Your task to perform on an android device: What's the weather like in Seoul? Image 0: 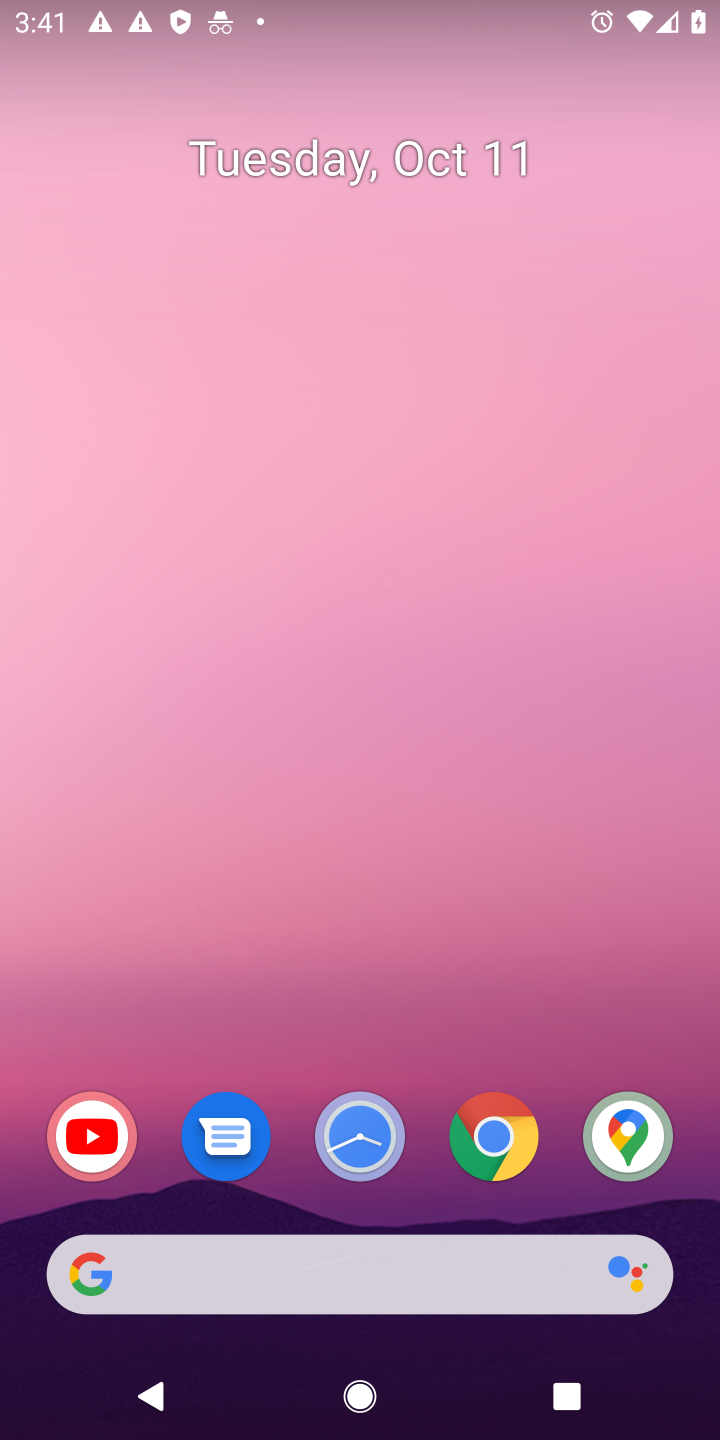
Step 0: click (496, 1131)
Your task to perform on an android device: What's the weather like in Seoul? Image 1: 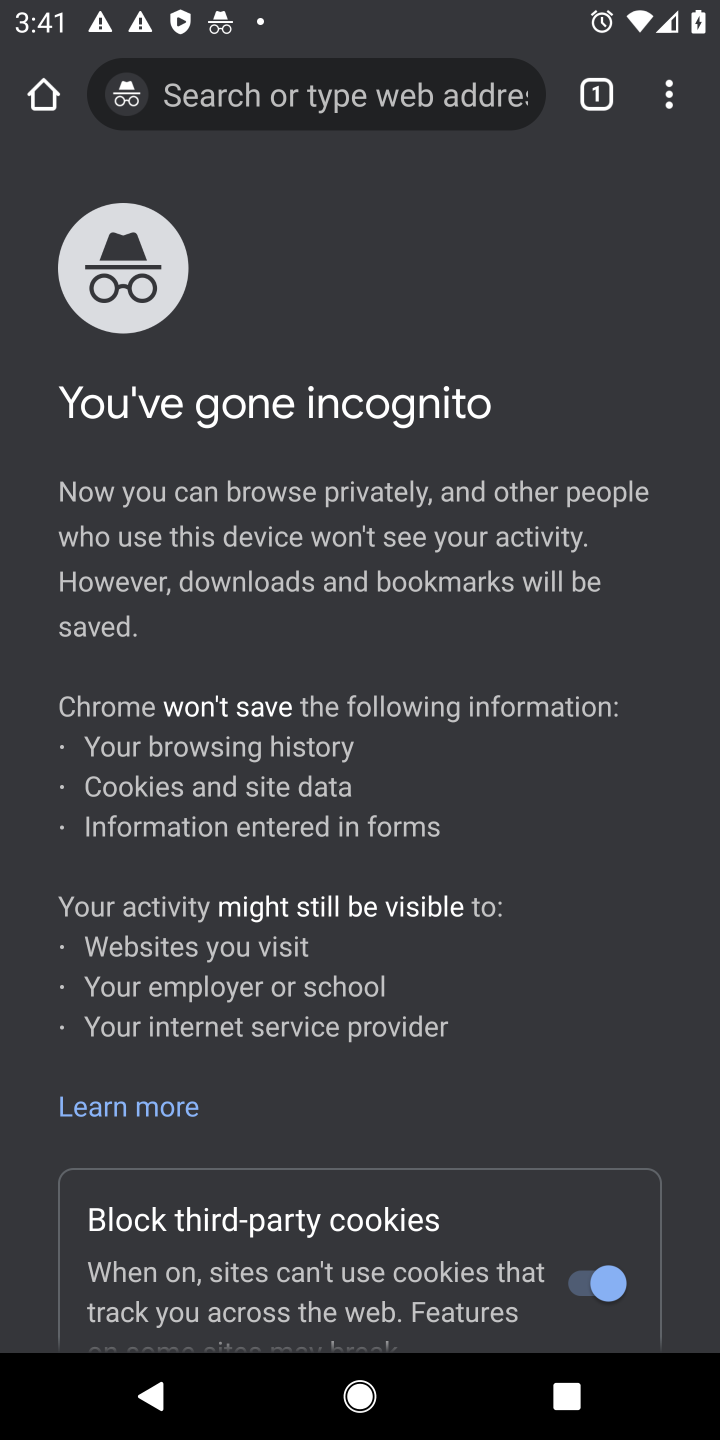
Step 1: click (433, 101)
Your task to perform on an android device: What's the weather like in Seoul? Image 2: 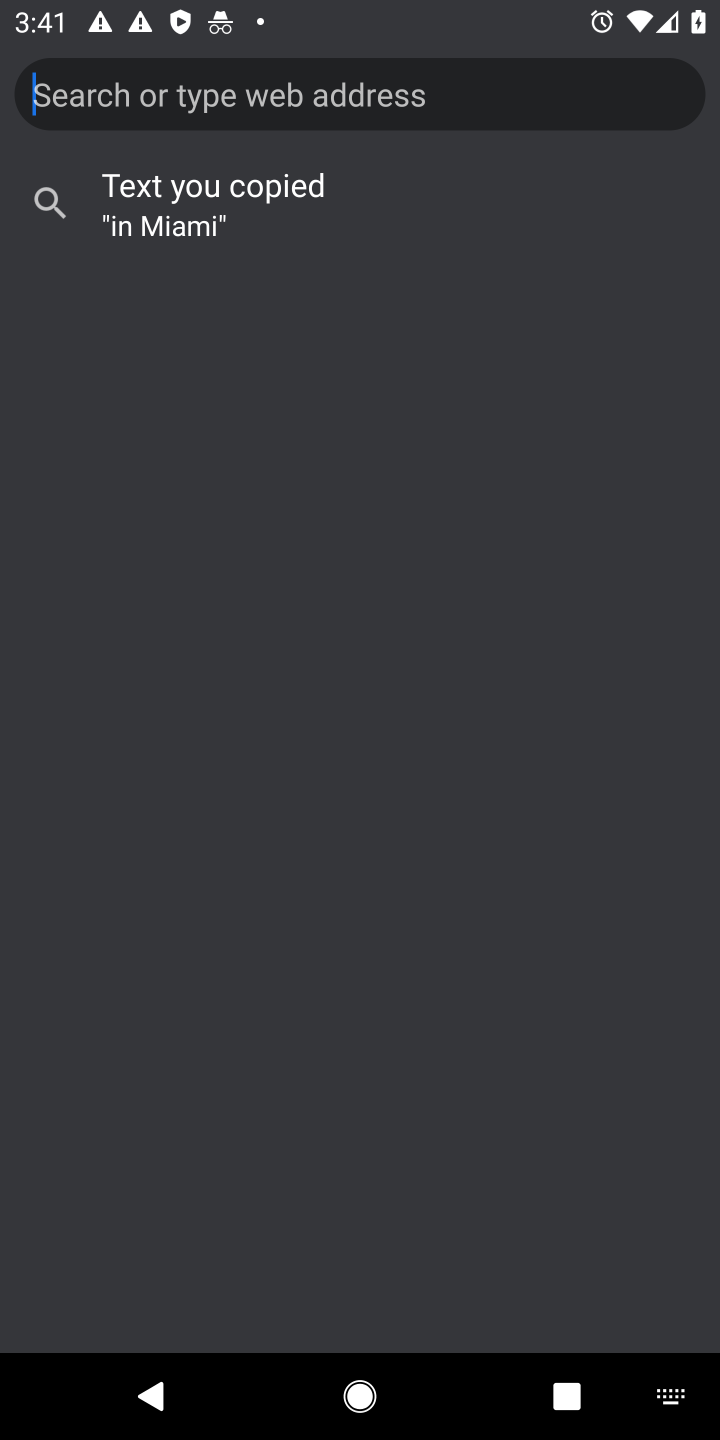
Step 2: type "weather like in Seoul"
Your task to perform on an android device: What's the weather like in Seoul? Image 3: 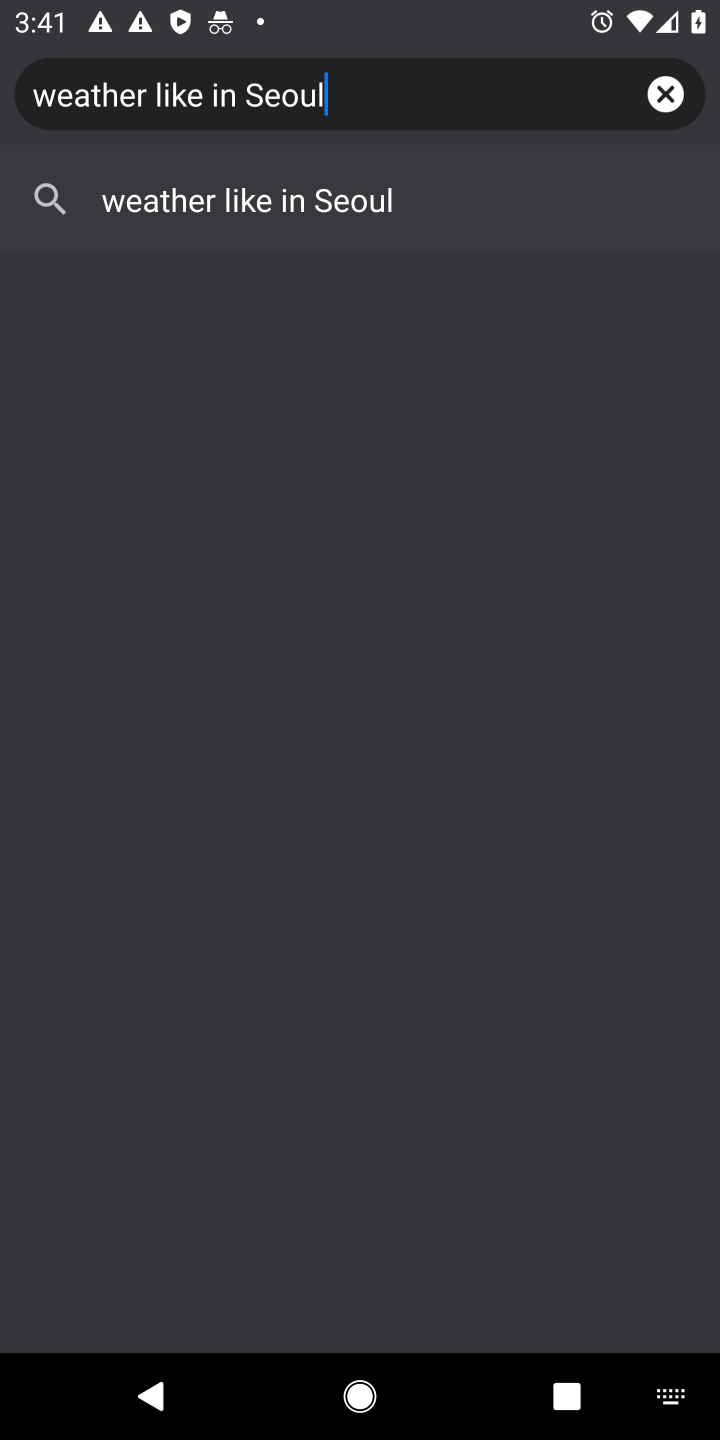
Step 3: click (292, 199)
Your task to perform on an android device: What's the weather like in Seoul? Image 4: 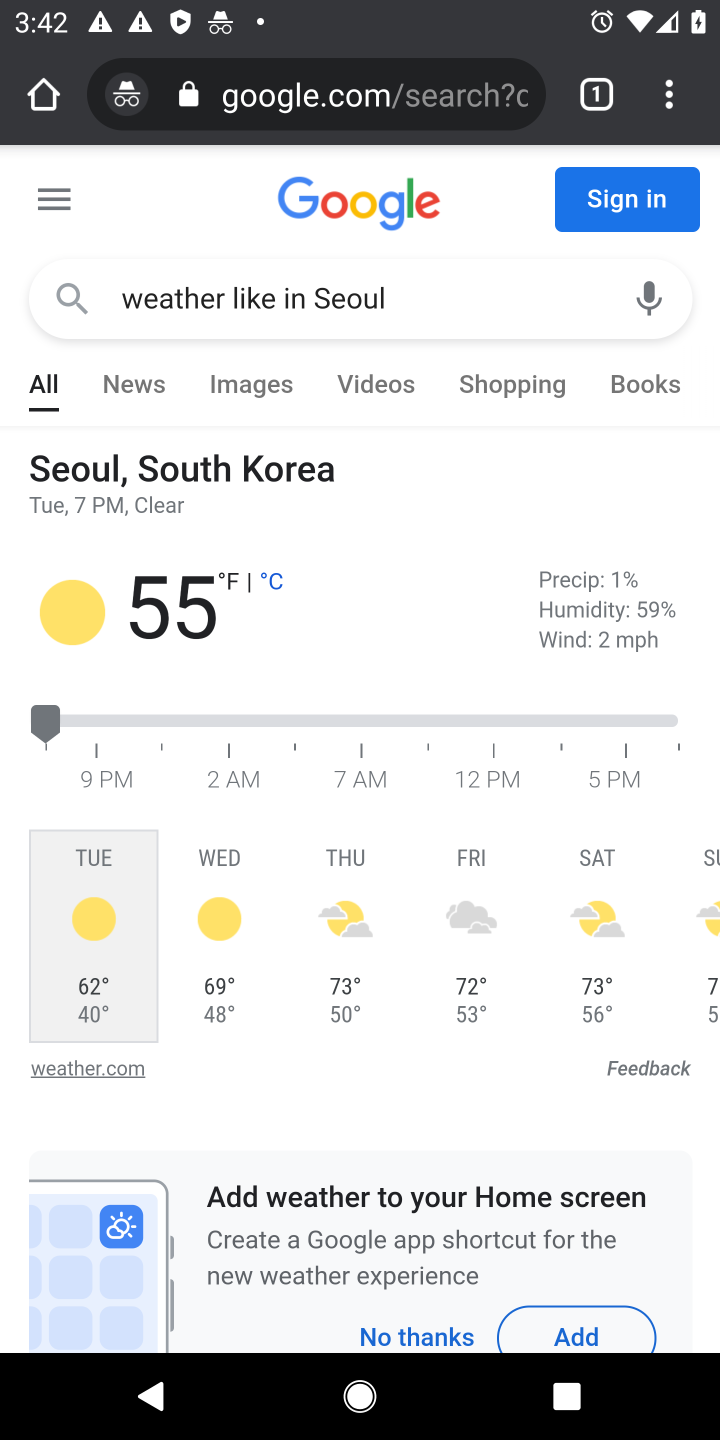
Step 4: task complete